Your task to perform on an android device: Open privacy settings Image 0: 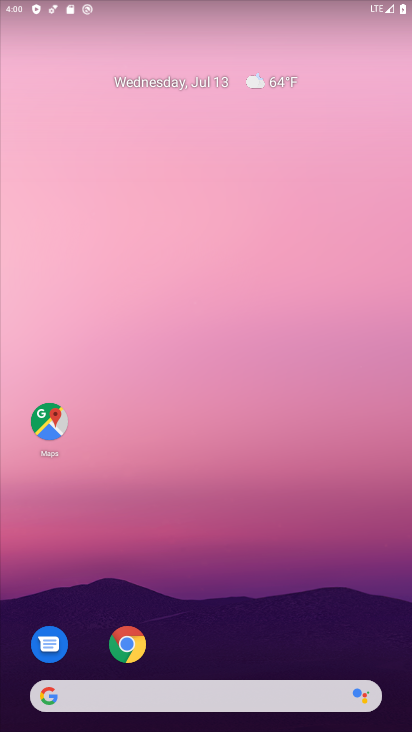
Step 0: drag from (236, 596) to (305, 31)
Your task to perform on an android device: Open privacy settings Image 1: 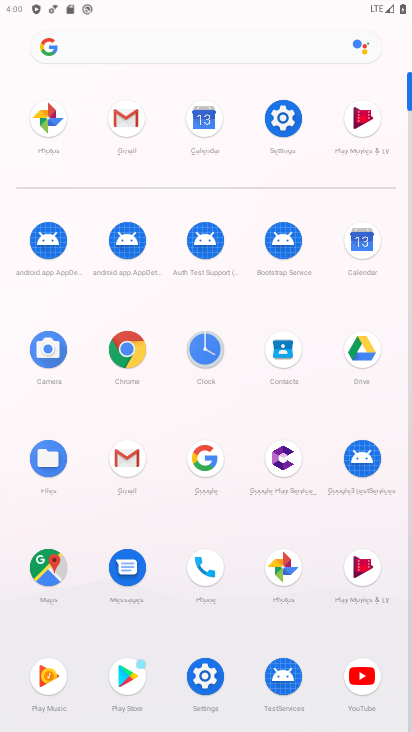
Step 1: click (276, 115)
Your task to perform on an android device: Open privacy settings Image 2: 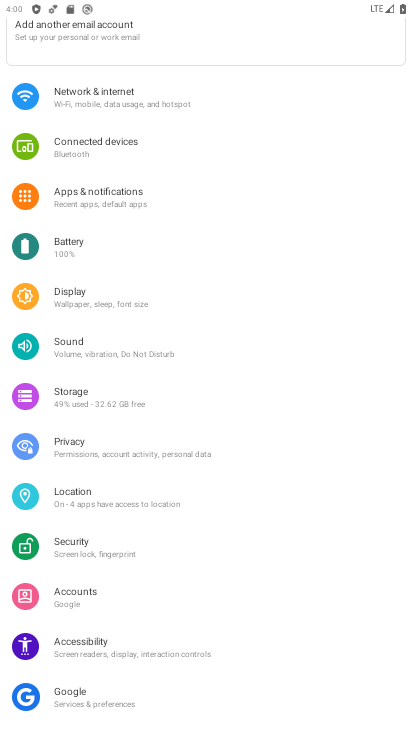
Step 2: click (85, 444)
Your task to perform on an android device: Open privacy settings Image 3: 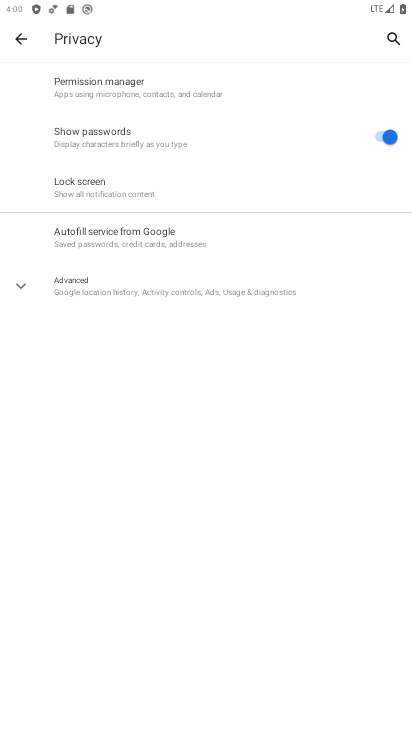
Step 3: task complete